Your task to perform on an android device: What is the recent news? Image 0: 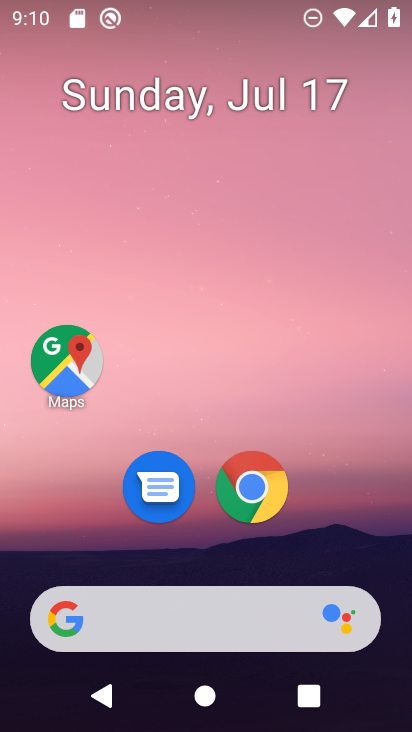
Step 0: click (147, 619)
Your task to perform on an android device: What is the recent news? Image 1: 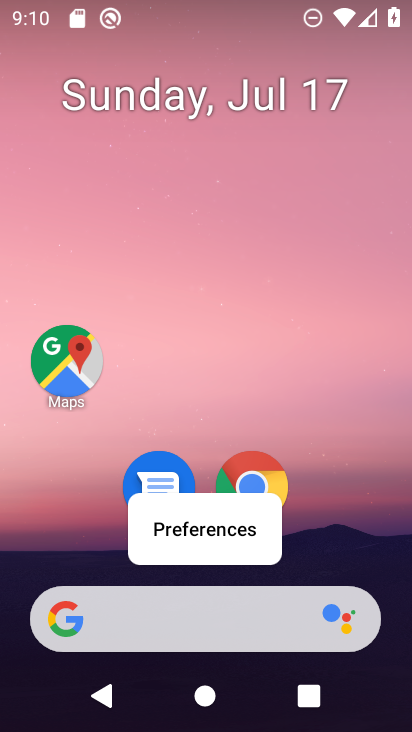
Step 1: click (58, 603)
Your task to perform on an android device: What is the recent news? Image 2: 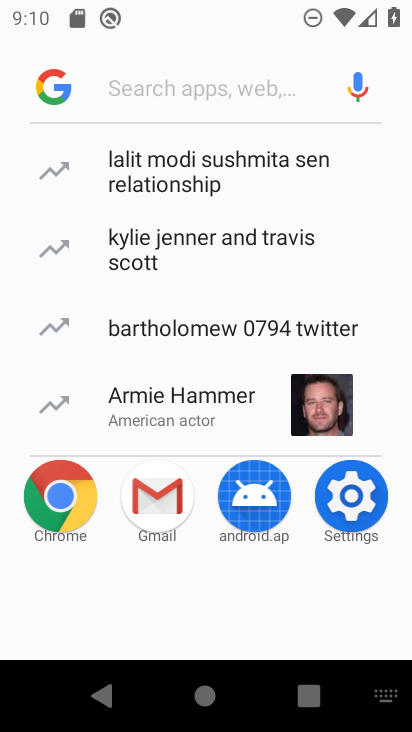
Step 2: type "recent news"
Your task to perform on an android device: What is the recent news? Image 3: 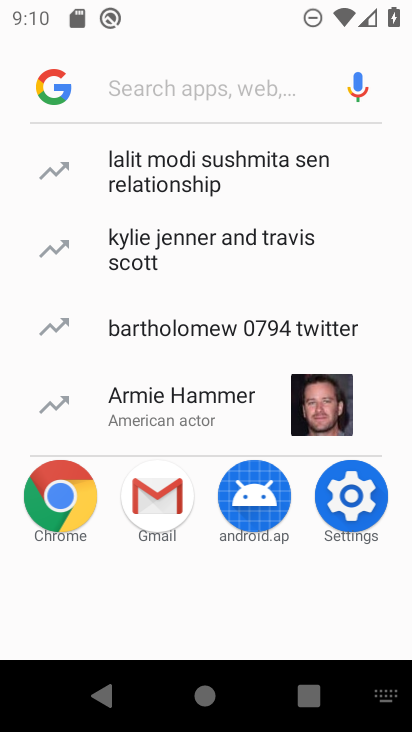
Step 3: click (224, 90)
Your task to perform on an android device: What is the recent news? Image 4: 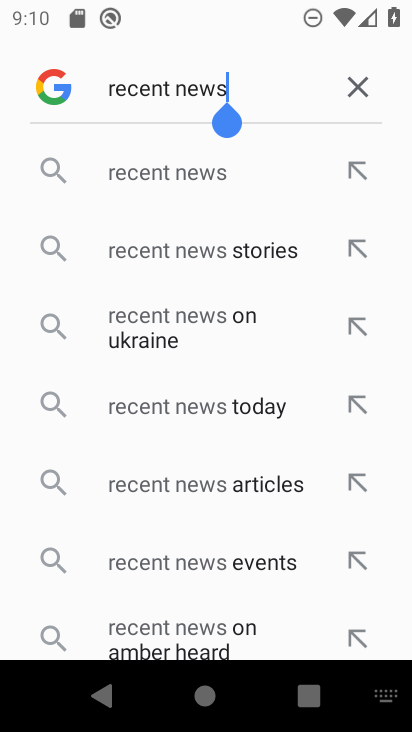
Step 4: press enter
Your task to perform on an android device: What is the recent news? Image 5: 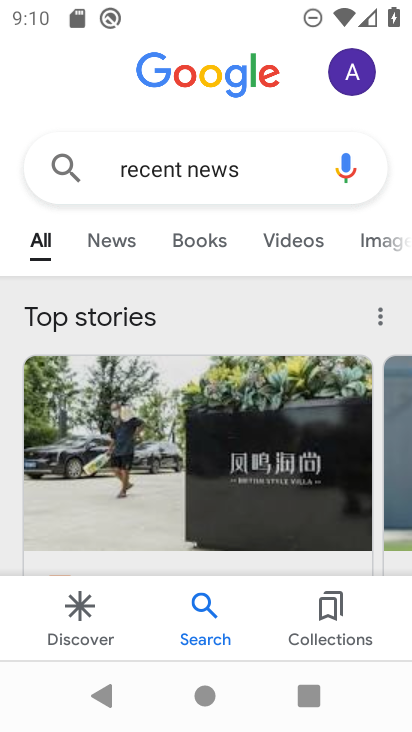
Step 5: task complete